Your task to perform on an android device: change the clock display to digital Image 0: 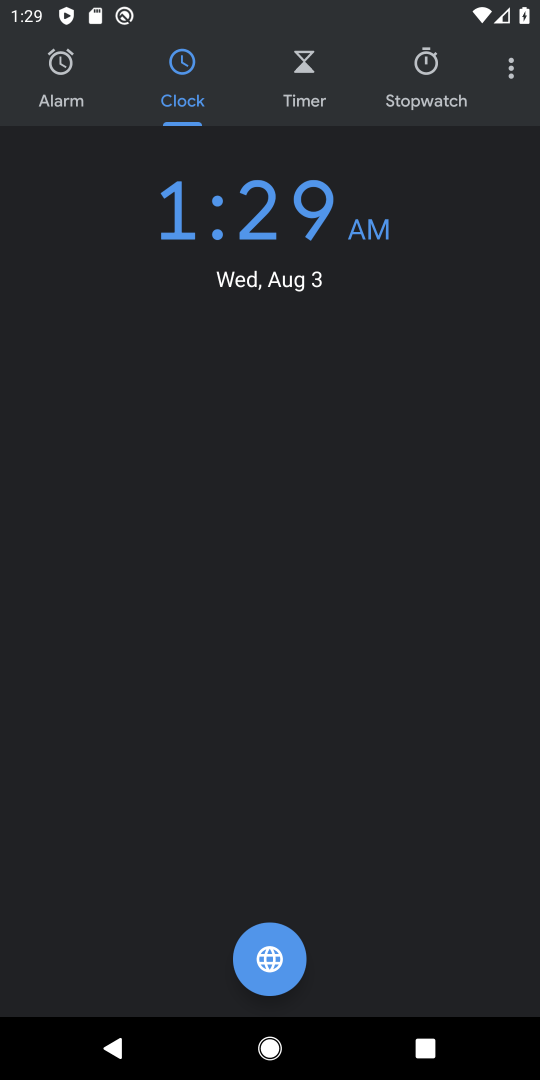
Step 0: press home button
Your task to perform on an android device: change the clock display to digital Image 1: 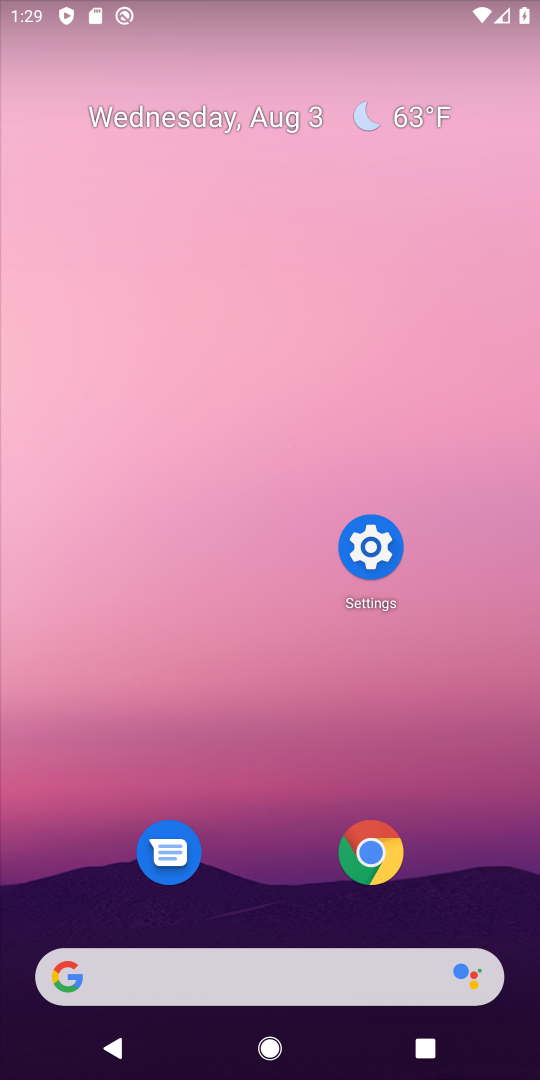
Step 1: drag from (293, 950) to (441, 95)
Your task to perform on an android device: change the clock display to digital Image 2: 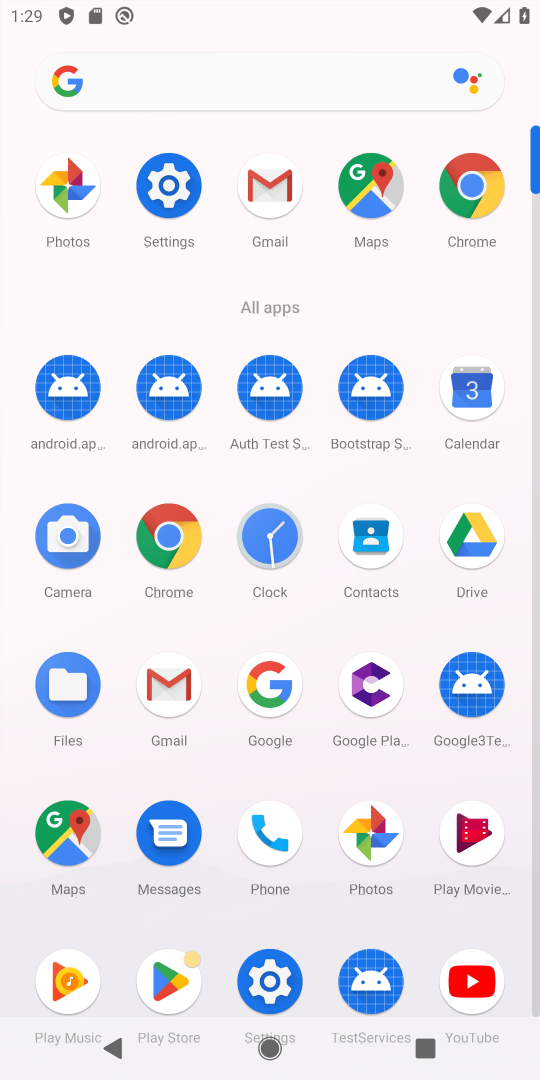
Step 2: click (267, 536)
Your task to perform on an android device: change the clock display to digital Image 3: 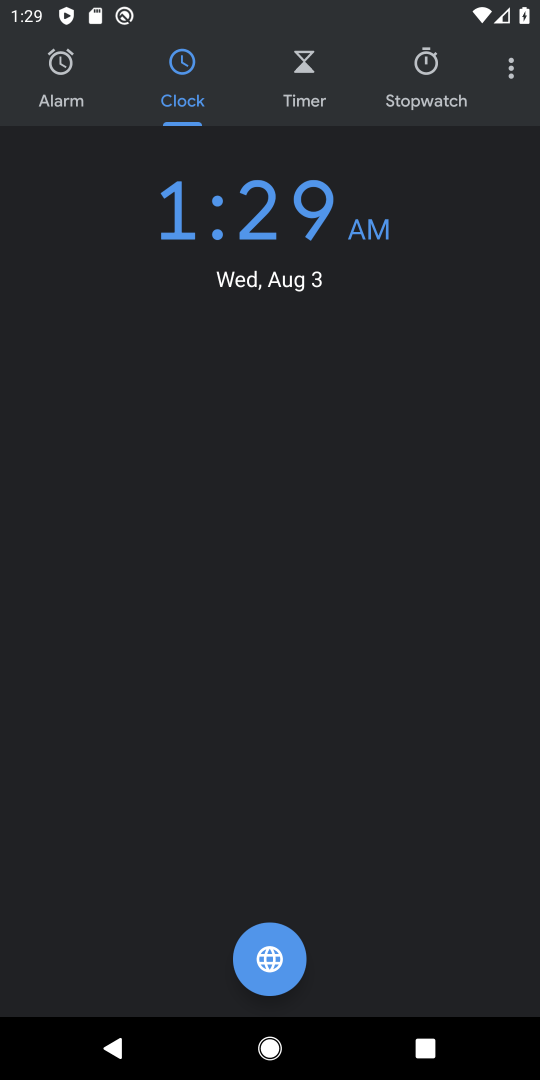
Step 3: click (511, 86)
Your task to perform on an android device: change the clock display to digital Image 4: 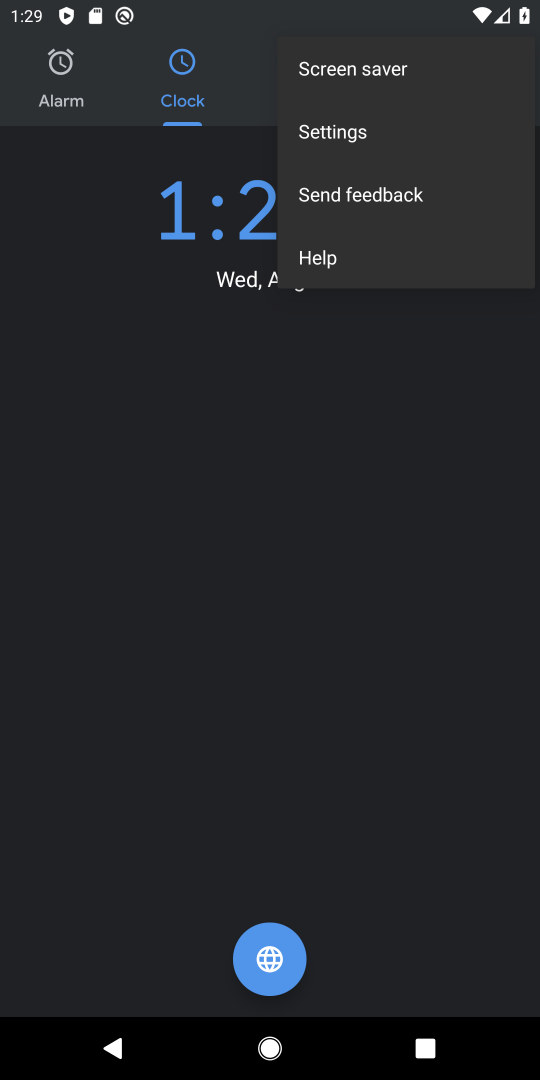
Step 4: click (352, 134)
Your task to perform on an android device: change the clock display to digital Image 5: 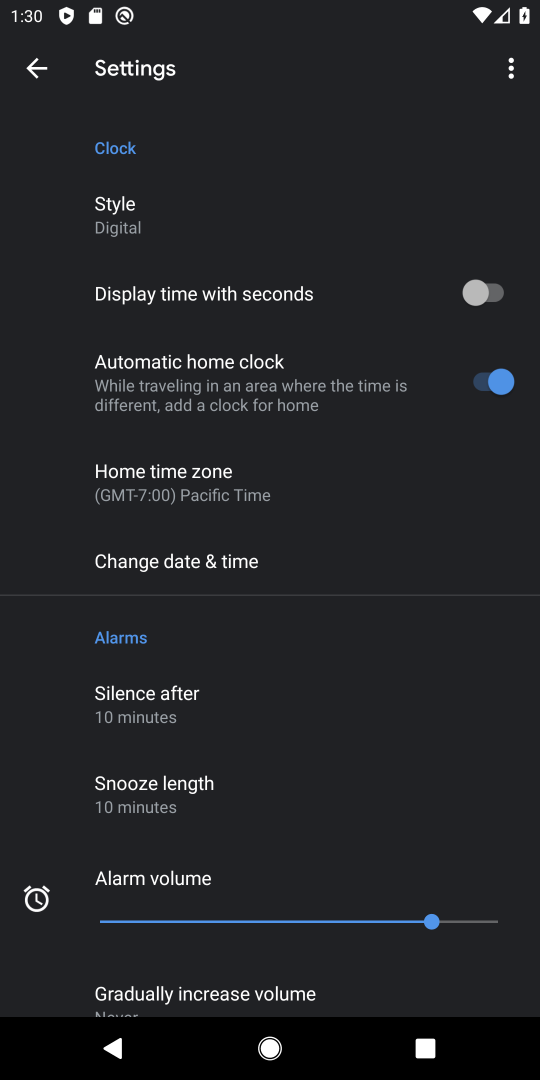
Step 5: click (111, 210)
Your task to perform on an android device: change the clock display to digital Image 6: 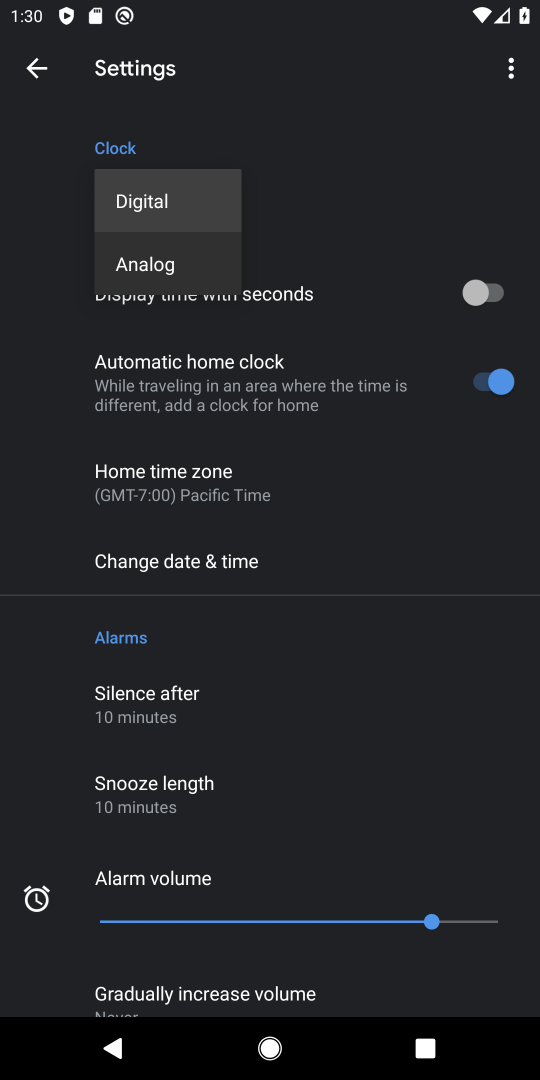
Step 6: click (161, 266)
Your task to perform on an android device: change the clock display to digital Image 7: 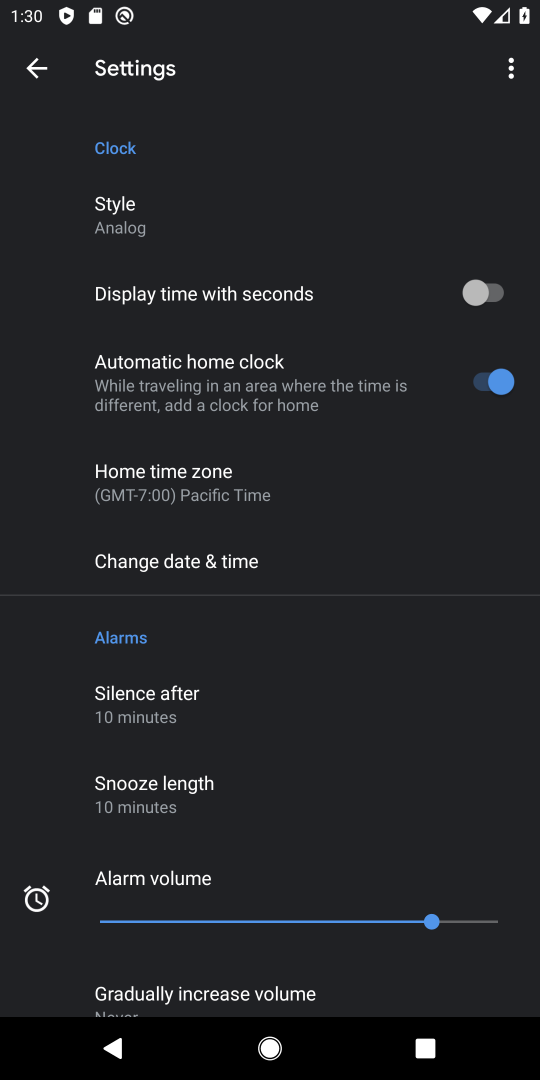
Step 7: task complete